Your task to perform on an android device: Turn off the flashlight Image 0: 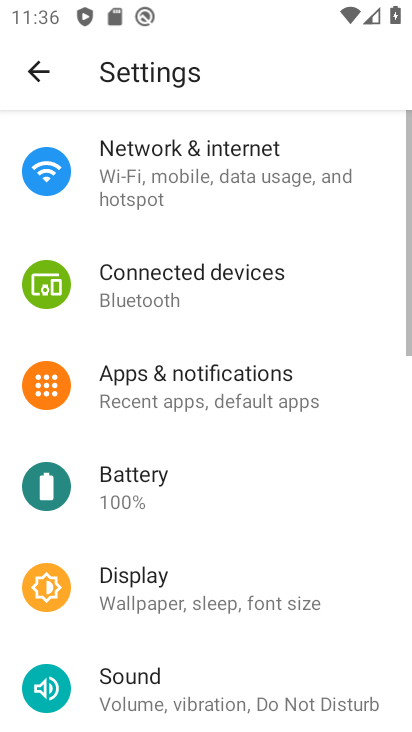
Step 0: press home button
Your task to perform on an android device: Turn off the flashlight Image 1: 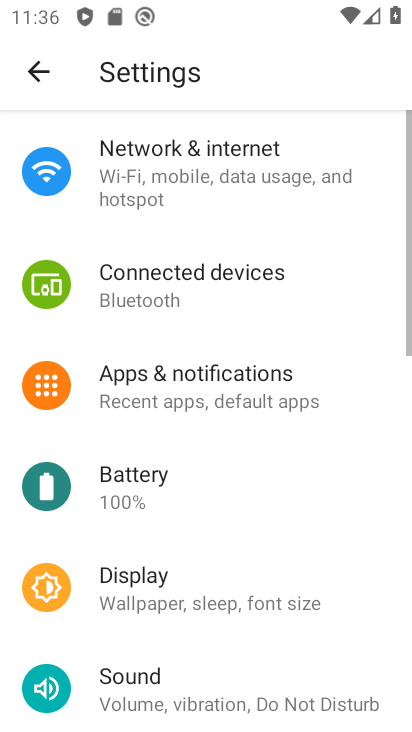
Step 1: task complete